Your task to perform on an android device: turn notification dots on Image 0: 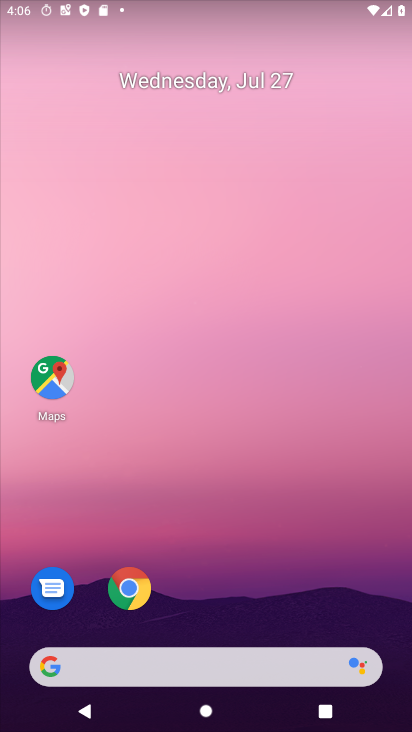
Step 0: press home button
Your task to perform on an android device: turn notification dots on Image 1: 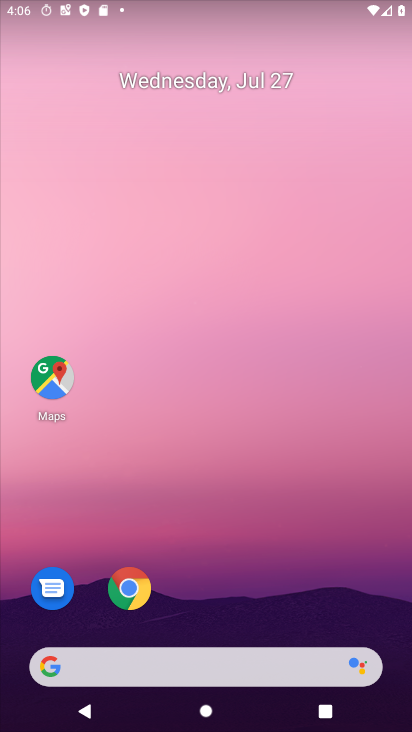
Step 1: drag from (286, 614) to (212, 92)
Your task to perform on an android device: turn notification dots on Image 2: 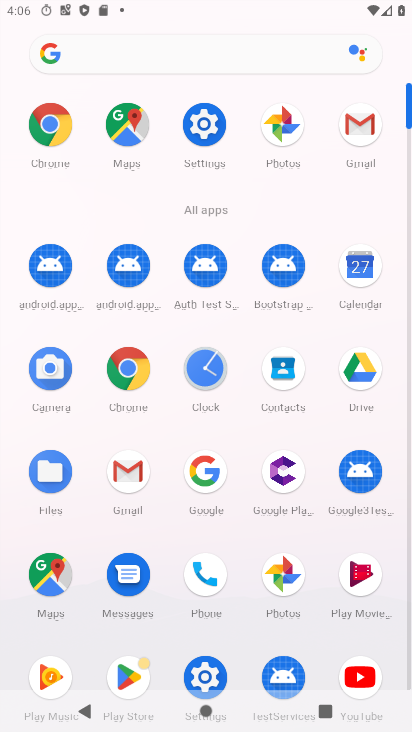
Step 2: click (206, 130)
Your task to perform on an android device: turn notification dots on Image 3: 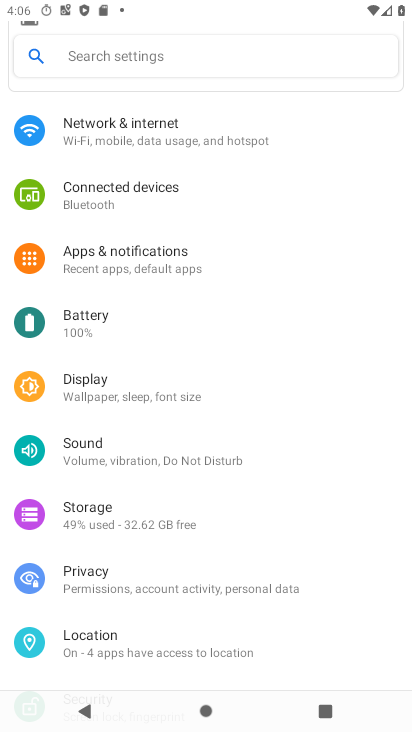
Step 3: click (130, 256)
Your task to perform on an android device: turn notification dots on Image 4: 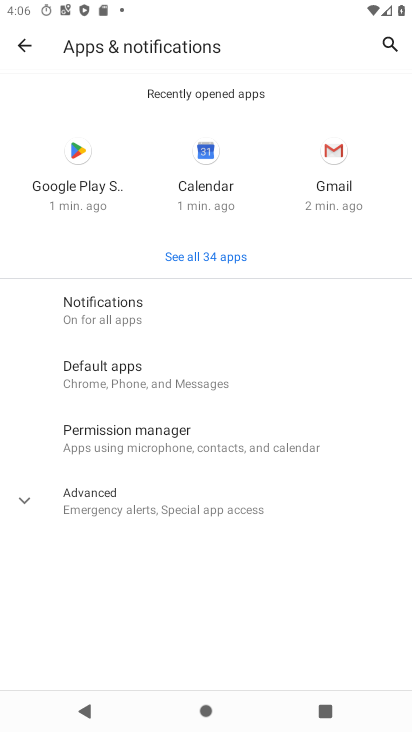
Step 4: click (111, 309)
Your task to perform on an android device: turn notification dots on Image 5: 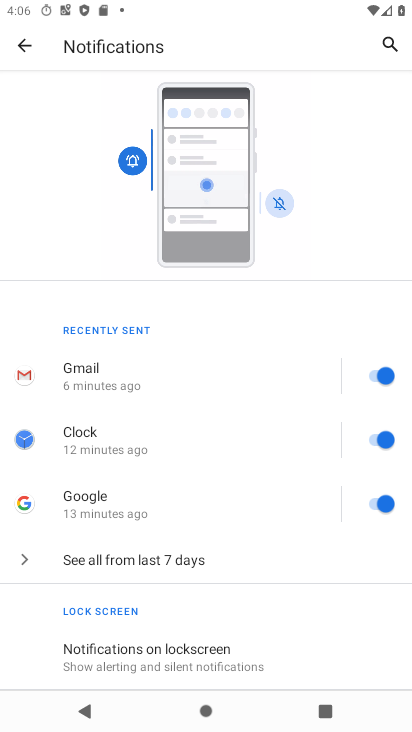
Step 5: drag from (208, 610) to (185, 154)
Your task to perform on an android device: turn notification dots on Image 6: 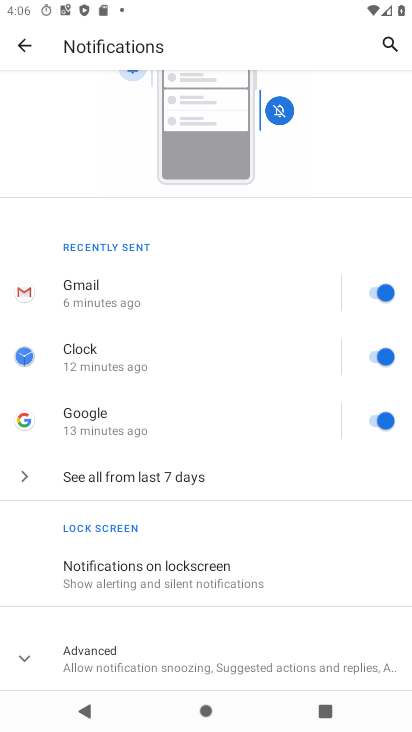
Step 6: click (86, 665)
Your task to perform on an android device: turn notification dots on Image 7: 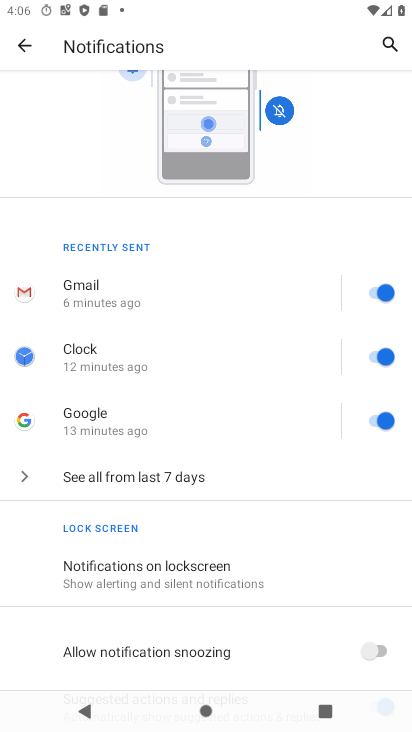
Step 7: task complete